Your task to perform on an android device: allow cookies in the chrome app Image 0: 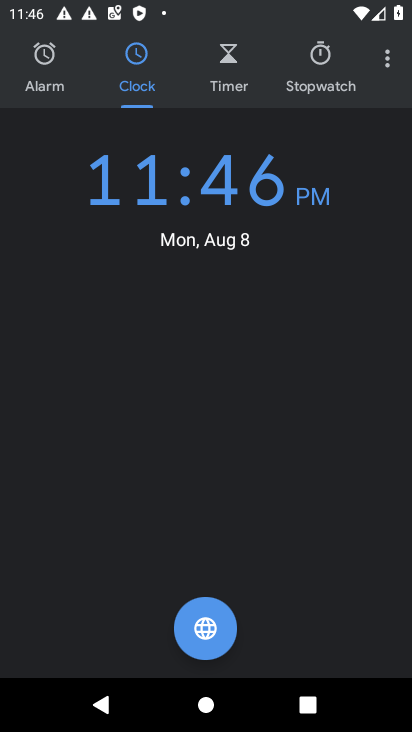
Step 0: press back button
Your task to perform on an android device: allow cookies in the chrome app Image 1: 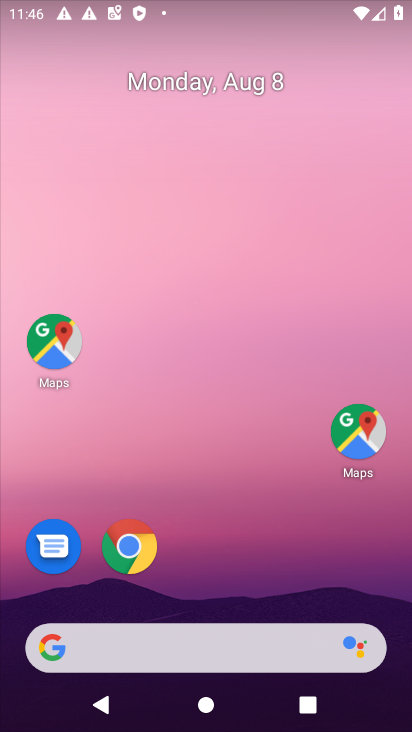
Step 1: drag from (134, 321) to (116, 169)
Your task to perform on an android device: allow cookies in the chrome app Image 2: 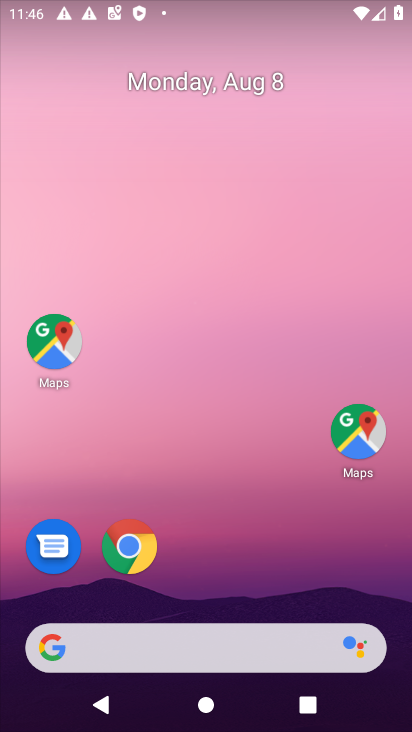
Step 2: click (152, 112)
Your task to perform on an android device: allow cookies in the chrome app Image 3: 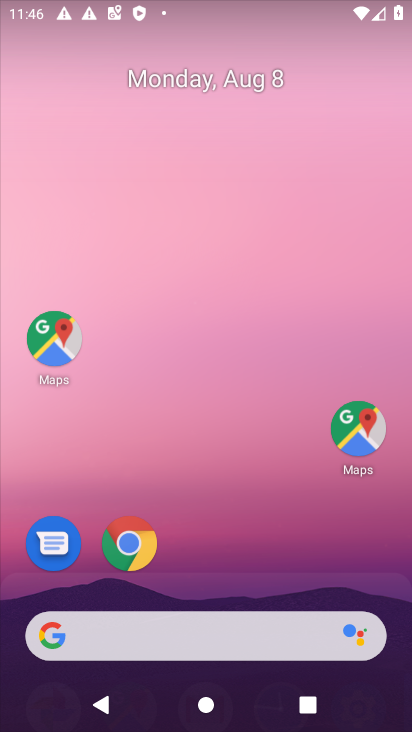
Step 3: drag from (220, 424) to (189, 92)
Your task to perform on an android device: allow cookies in the chrome app Image 4: 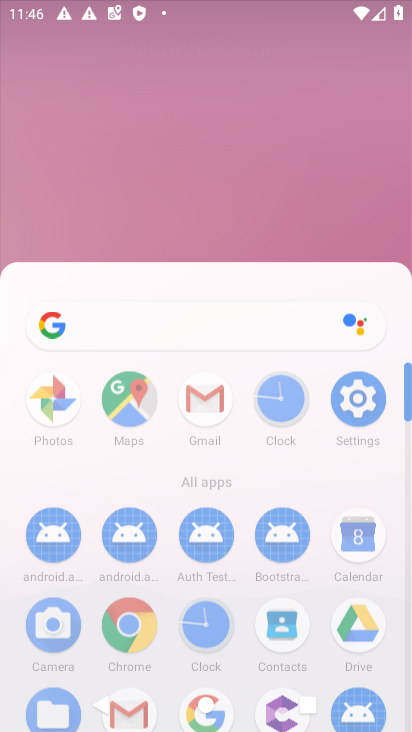
Step 4: drag from (221, 578) to (145, 207)
Your task to perform on an android device: allow cookies in the chrome app Image 5: 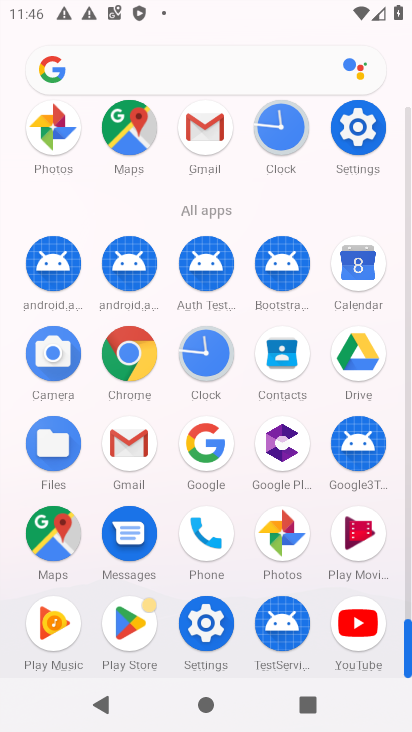
Step 5: click (129, 359)
Your task to perform on an android device: allow cookies in the chrome app Image 6: 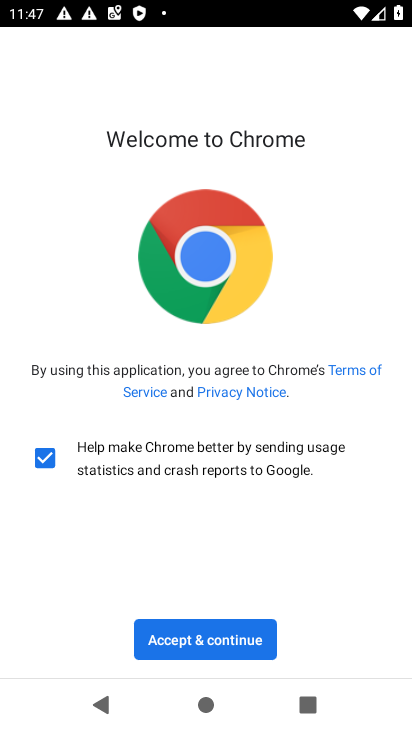
Step 6: click (216, 648)
Your task to perform on an android device: allow cookies in the chrome app Image 7: 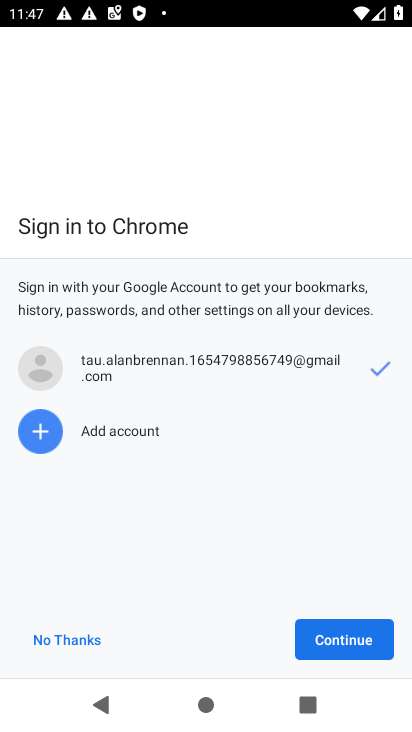
Step 7: click (218, 647)
Your task to perform on an android device: allow cookies in the chrome app Image 8: 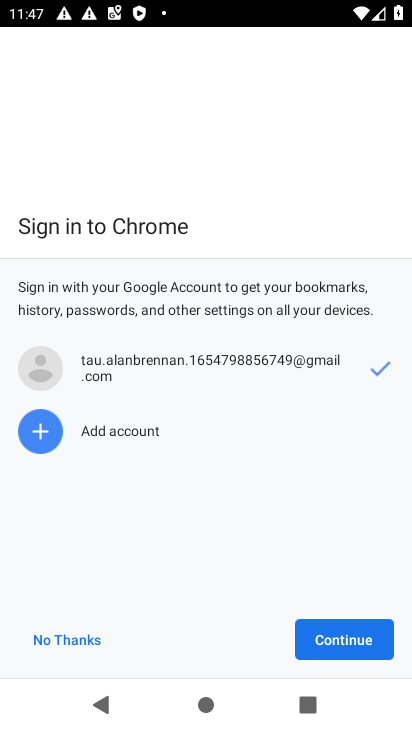
Step 8: click (55, 636)
Your task to perform on an android device: allow cookies in the chrome app Image 9: 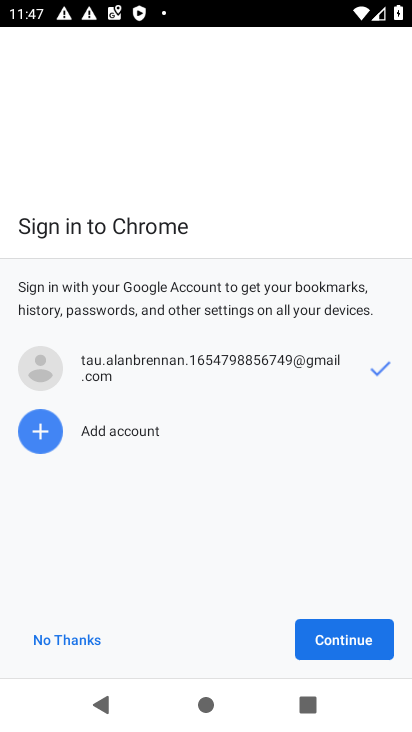
Step 9: click (55, 636)
Your task to perform on an android device: allow cookies in the chrome app Image 10: 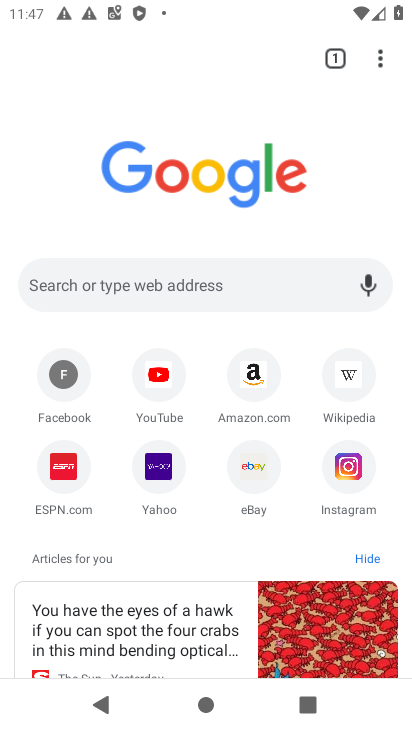
Step 10: drag from (378, 63) to (156, 526)
Your task to perform on an android device: allow cookies in the chrome app Image 11: 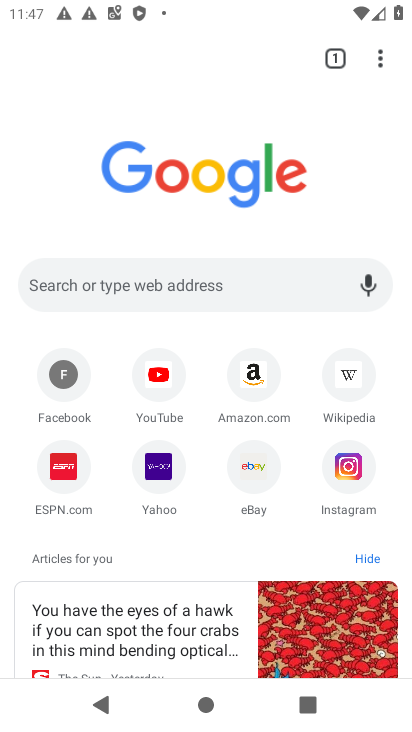
Step 11: click (166, 496)
Your task to perform on an android device: allow cookies in the chrome app Image 12: 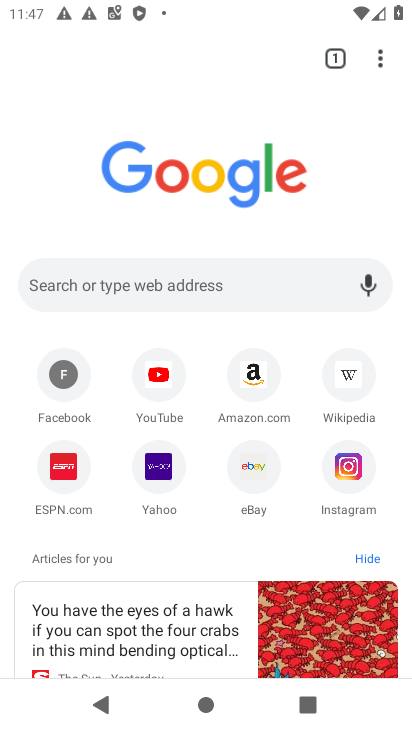
Step 12: drag from (380, 58) to (267, 331)
Your task to perform on an android device: allow cookies in the chrome app Image 13: 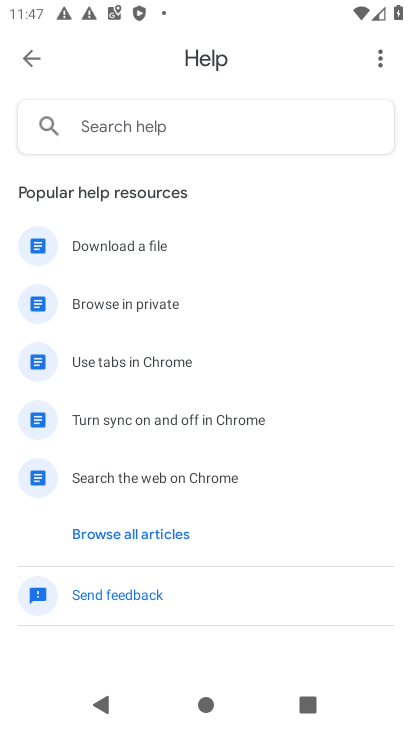
Step 13: press back button
Your task to perform on an android device: allow cookies in the chrome app Image 14: 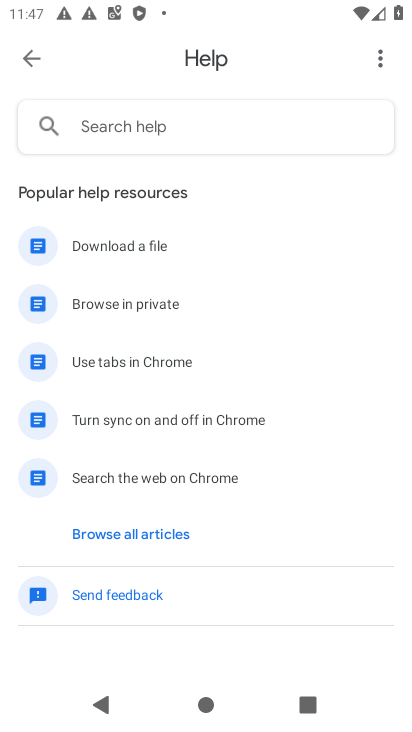
Step 14: press back button
Your task to perform on an android device: allow cookies in the chrome app Image 15: 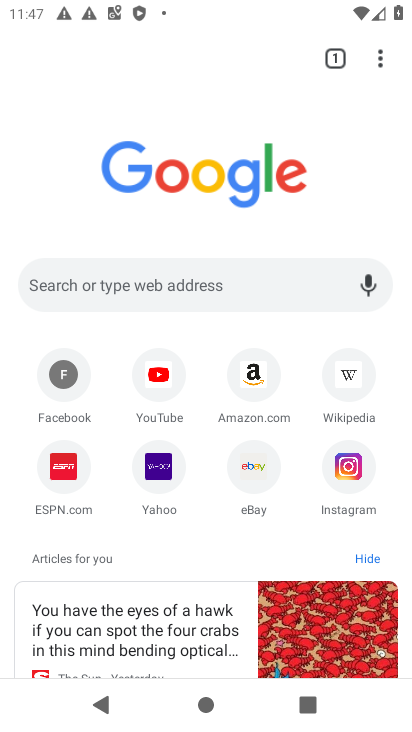
Step 15: press back button
Your task to perform on an android device: allow cookies in the chrome app Image 16: 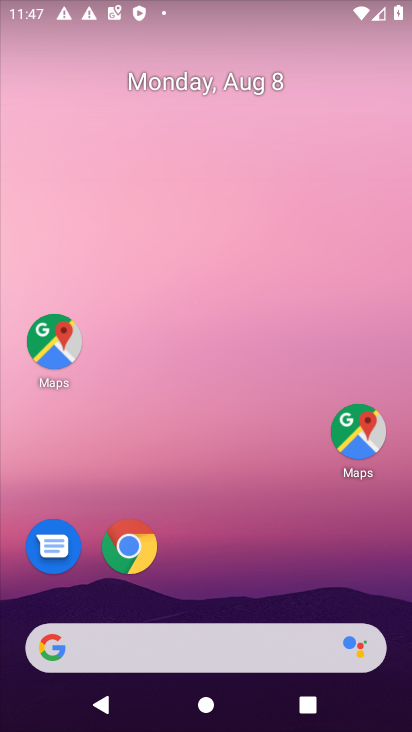
Step 16: drag from (266, 701) to (178, 9)
Your task to perform on an android device: allow cookies in the chrome app Image 17: 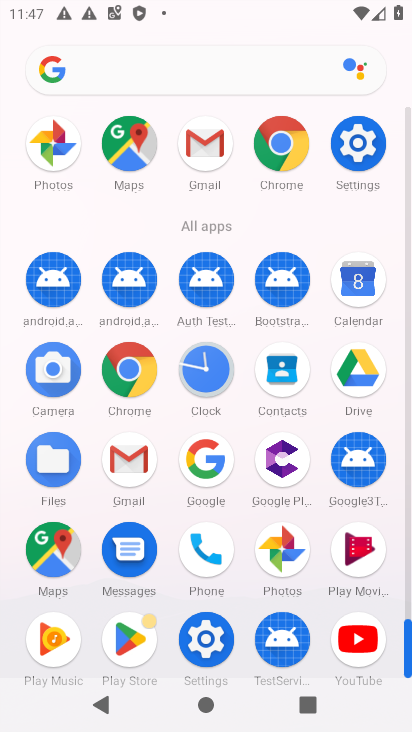
Step 17: click (277, 143)
Your task to perform on an android device: allow cookies in the chrome app Image 18: 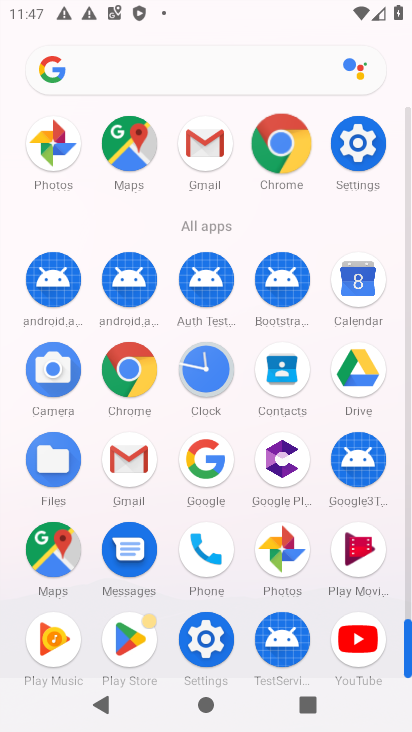
Step 18: click (275, 144)
Your task to perform on an android device: allow cookies in the chrome app Image 19: 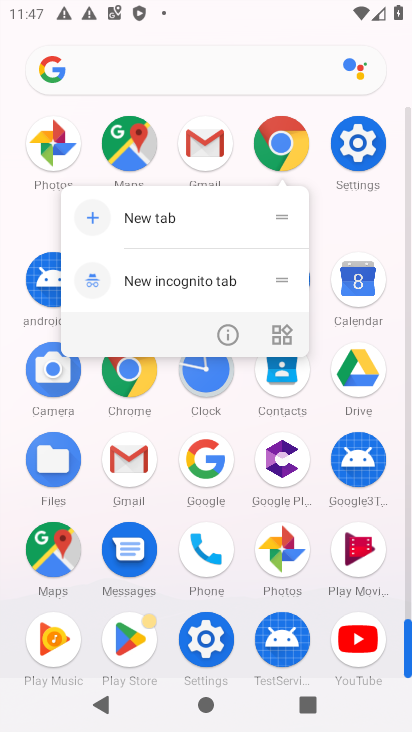
Step 19: click (277, 147)
Your task to perform on an android device: allow cookies in the chrome app Image 20: 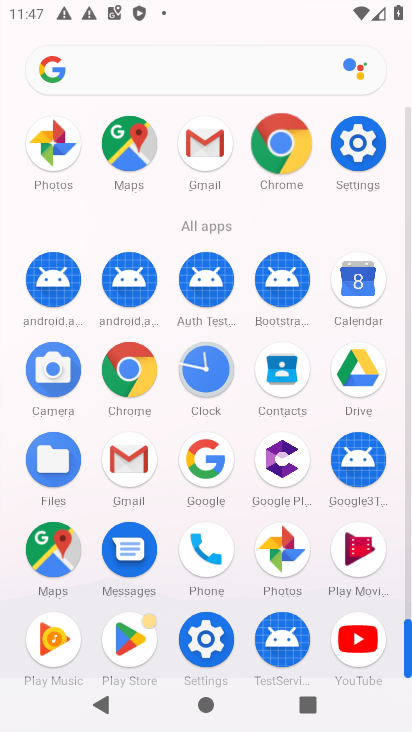
Step 20: click (277, 147)
Your task to perform on an android device: allow cookies in the chrome app Image 21: 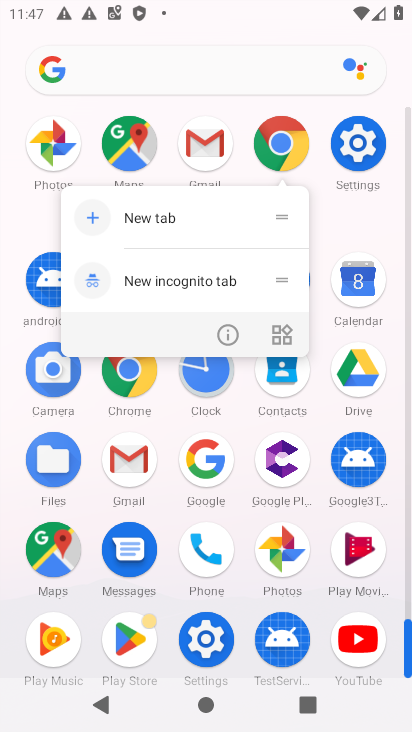
Step 21: click (280, 149)
Your task to perform on an android device: allow cookies in the chrome app Image 22: 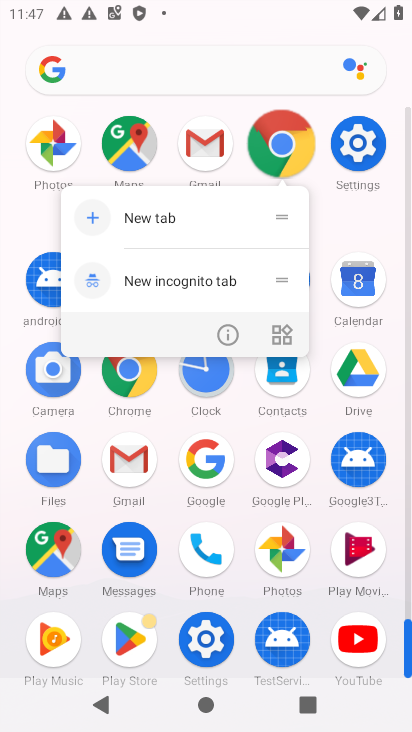
Step 22: click (280, 148)
Your task to perform on an android device: allow cookies in the chrome app Image 23: 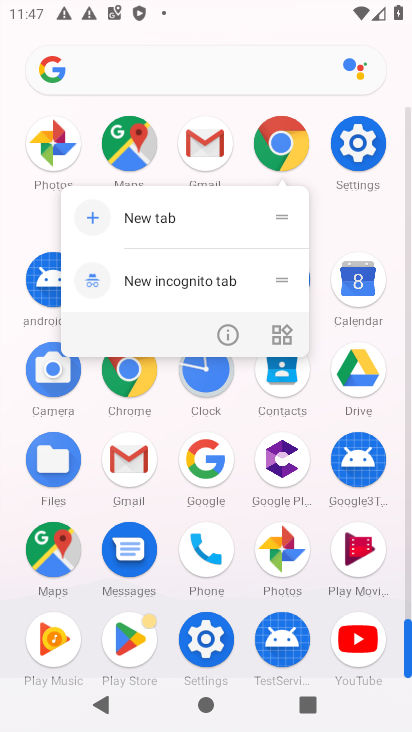
Step 23: click (280, 148)
Your task to perform on an android device: allow cookies in the chrome app Image 24: 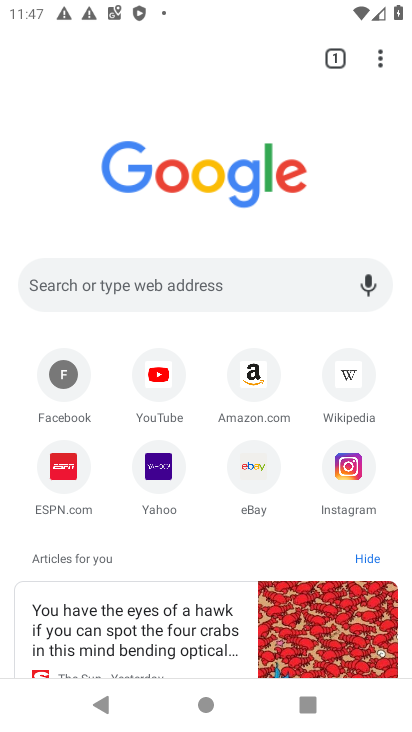
Step 24: drag from (380, 48) to (162, 509)
Your task to perform on an android device: allow cookies in the chrome app Image 25: 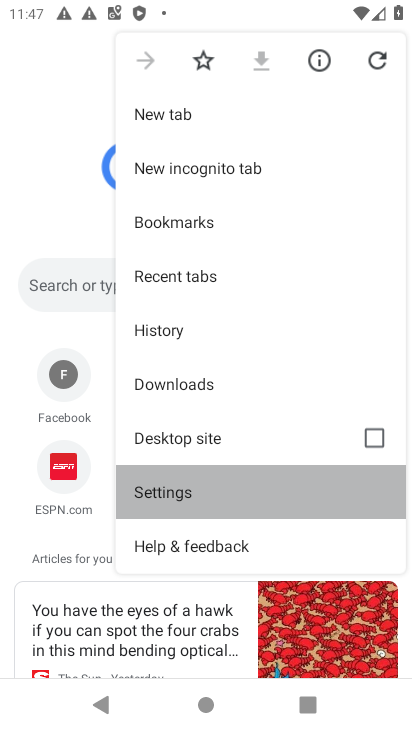
Step 25: click (157, 510)
Your task to perform on an android device: allow cookies in the chrome app Image 26: 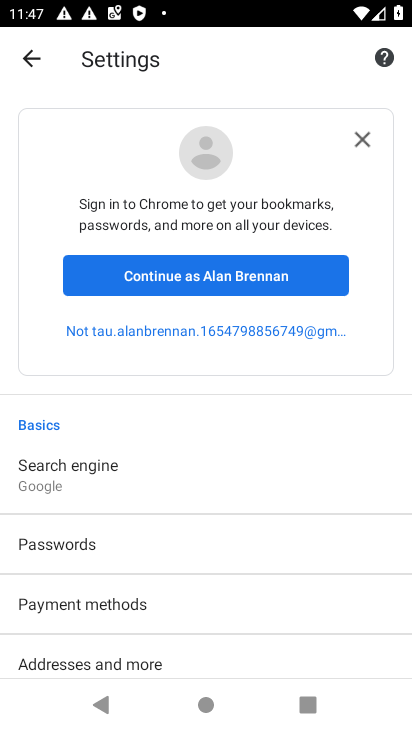
Step 26: click (357, 133)
Your task to perform on an android device: allow cookies in the chrome app Image 27: 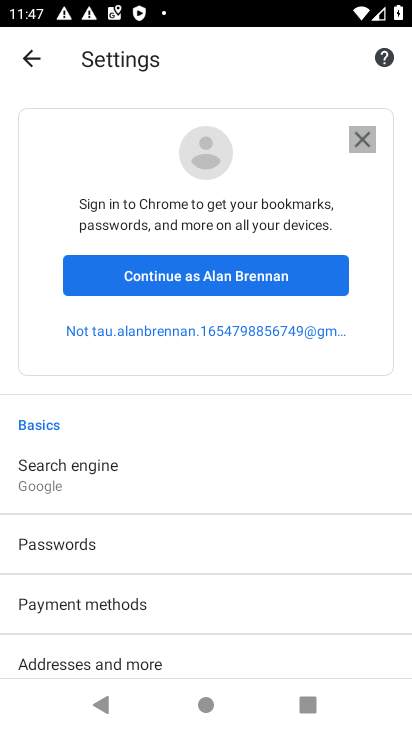
Step 27: click (360, 131)
Your task to perform on an android device: allow cookies in the chrome app Image 28: 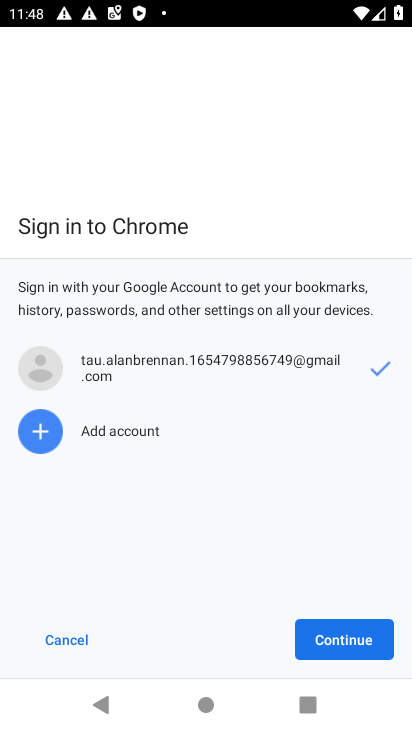
Step 28: click (60, 648)
Your task to perform on an android device: allow cookies in the chrome app Image 29: 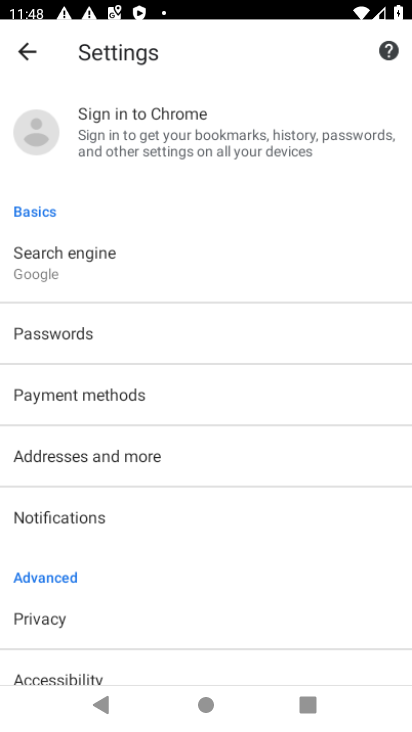
Step 29: click (55, 639)
Your task to perform on an android device: allow cookies in the chrome app Image 30: 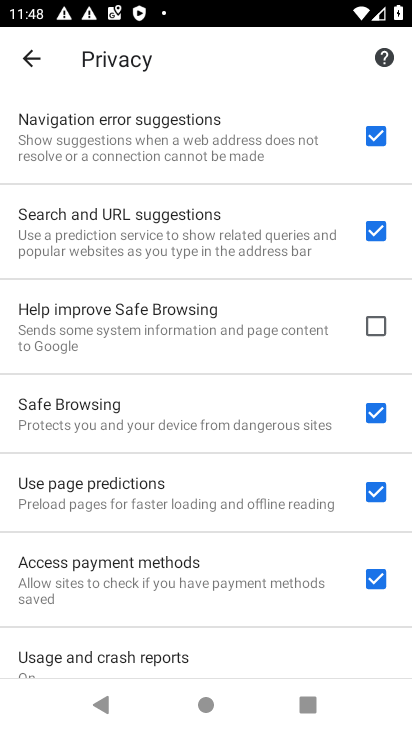
Step 30: click (27, 57)
Your task to perform on an android device: allow cookies in the chrome app Image 31: 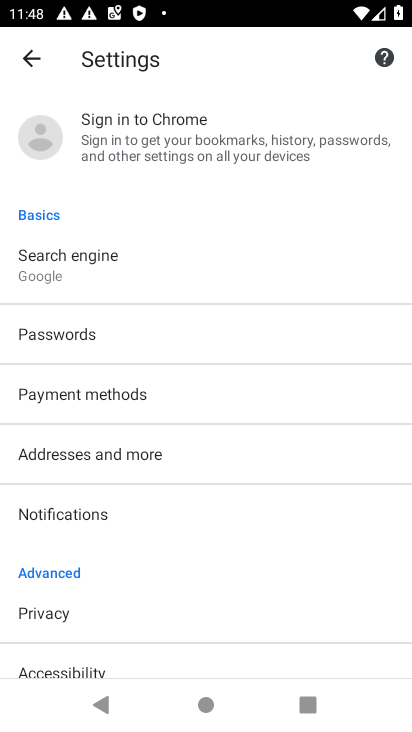
Step 31: drag from (12, 535) to (17, 300)
Your task to perform on an android device: allow cookies in the chrome app Image 32: 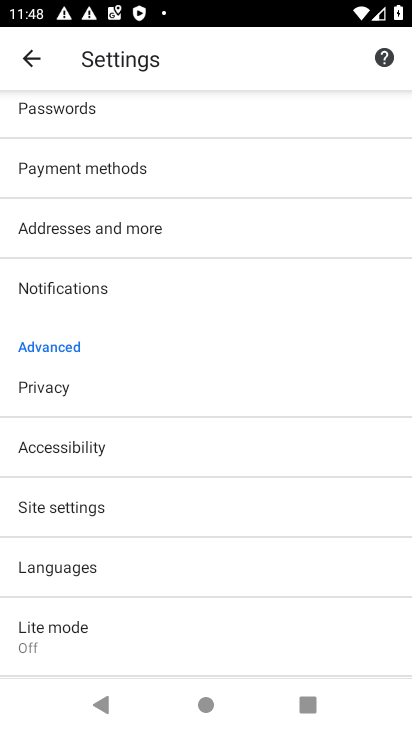
Step 32: click (52, 507)
Your task to perform on an android device: allow cookies in the chrome app Image 33: 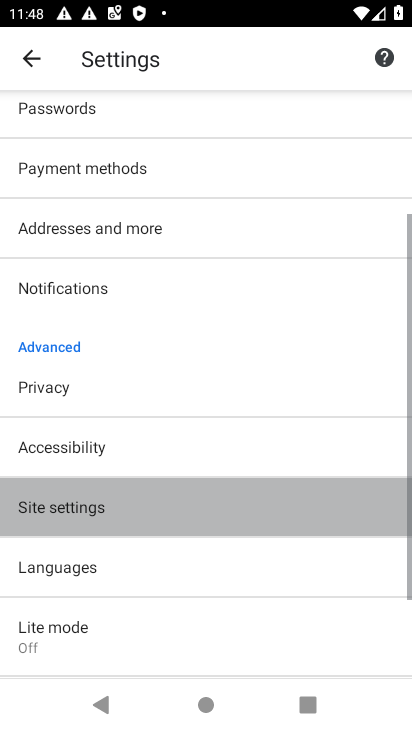
Step 33: click (52, 507)
Your task to perform on an android device: allow cookies in the chrome app Image 34: 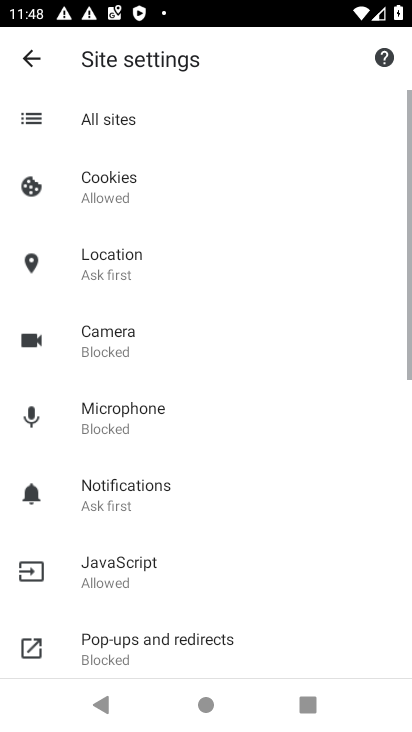
Step 34: click (109, 181)
Your task to perform on an android device: allow cookies in the chrome app Image 35: 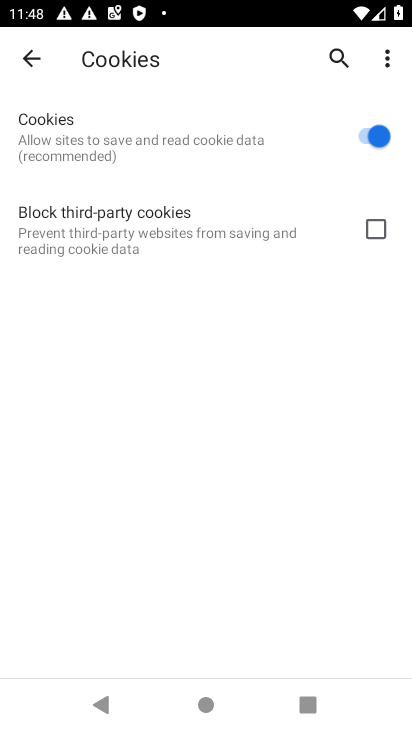
Step 35: task complete